Your task to perform on an android device: turn on sleep mode Image 0: 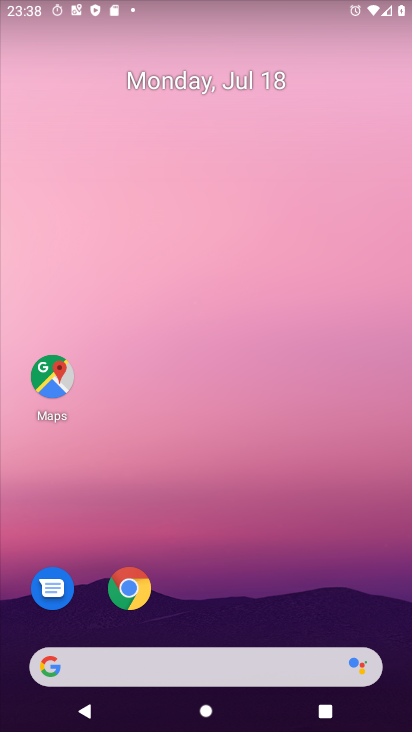
Step 0: drag from (185, 671) to (311, 113)
Your task to perform on an android device: turn on sleep mode Image 1: 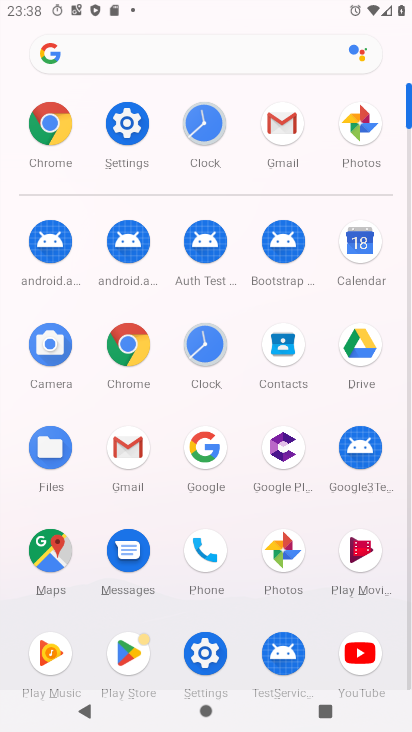
Step 1: click (127, 125)
Your task to perform on an android device: turn on sleep mode Image 2: 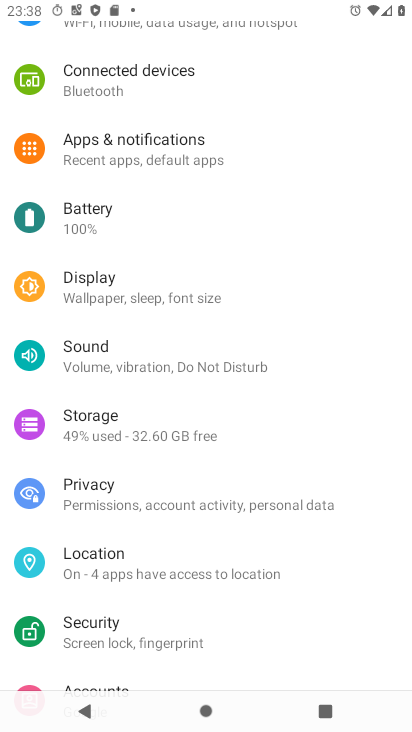
Step 2: drag from (331, 162) to (297, 533)
Your task to perform on an android device: turn on sleep mode Image 3: 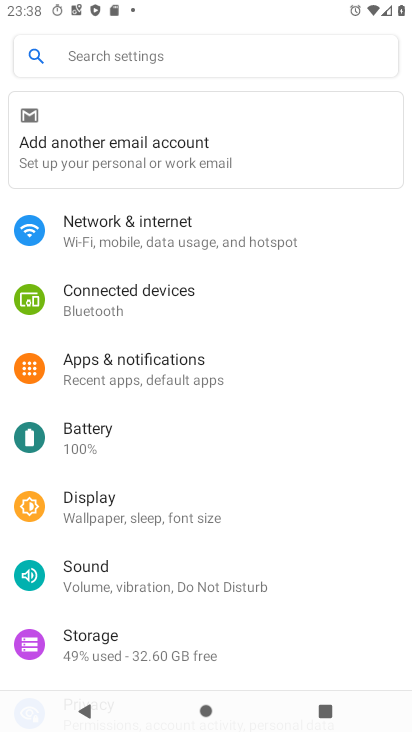
Step 3: drag from (275, 564) to (356, 260)
Your task to perform on an android device: turn on sleep mode Image 4: 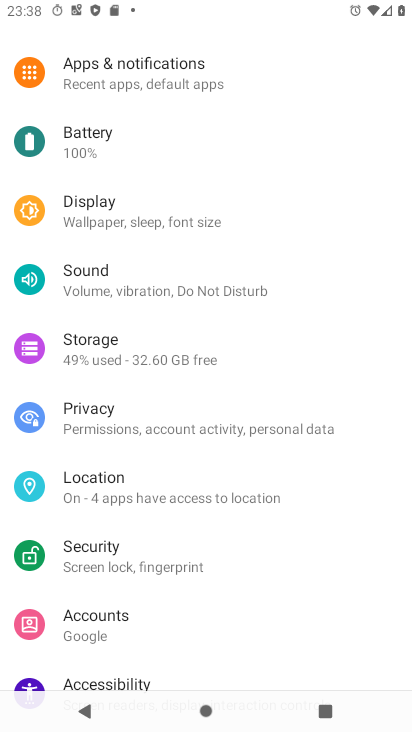
Step 4: click (124, 218)
Your task to perform on an android device: turn on sleep mode Image 5: 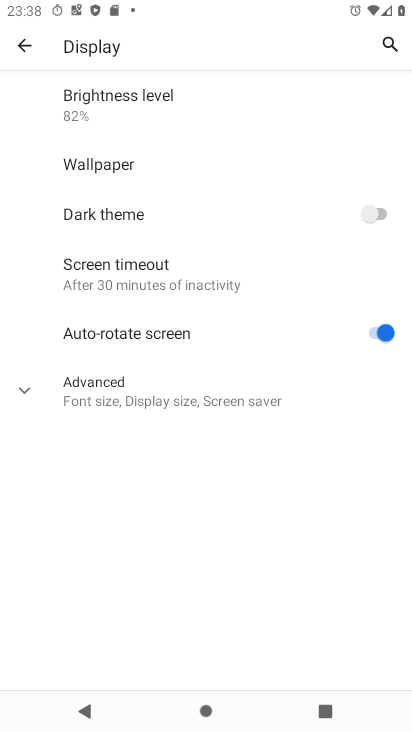
Step 5: task complete